Your task to perform on an android device: Open my contact list Image 0: 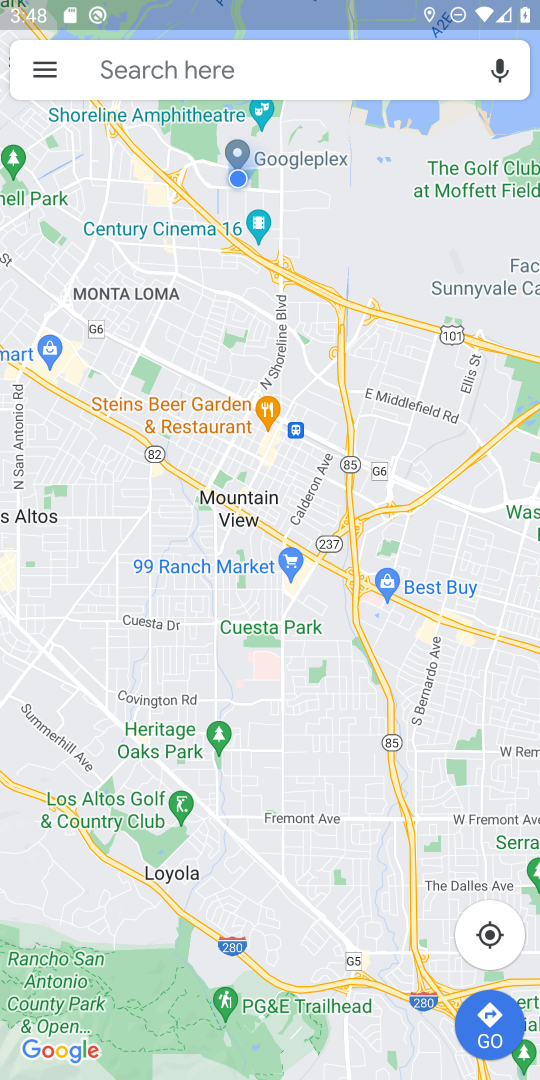
Step 0: press home button
Your task to perform on an android device: Open my contact list Image 1: 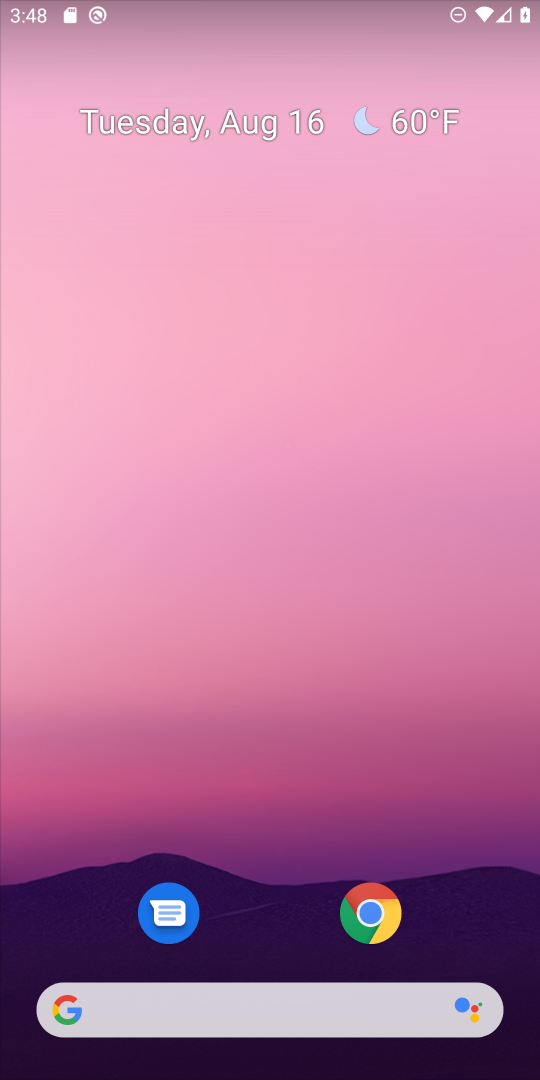
Step 1: drag from (505, 948) to (466, 221)
Your task to perform on an android device: Open my contact list Image 2: 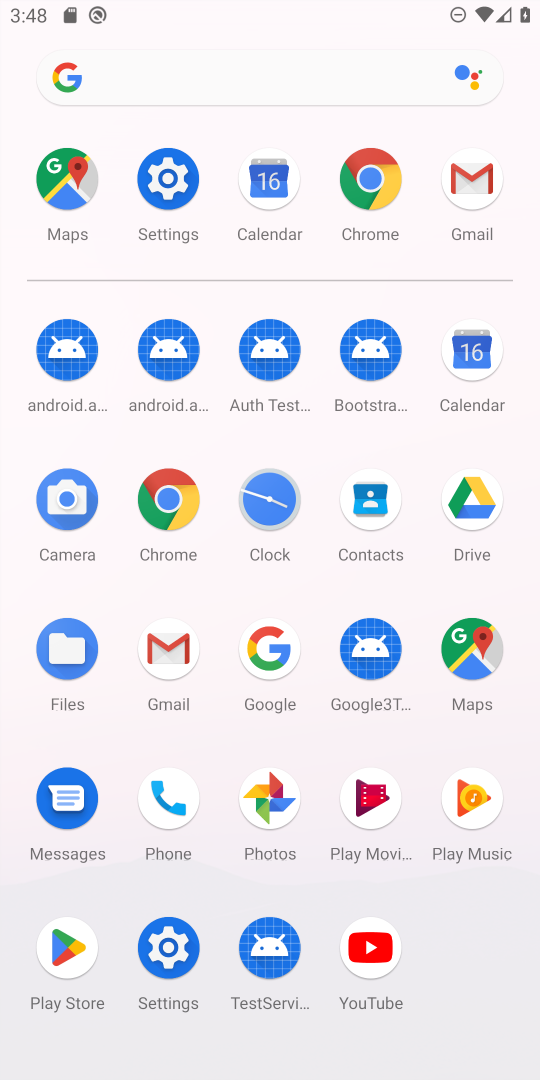
Step 2: click (367, 506)
Your task to perform on an android device: Open my contact list Image 3: 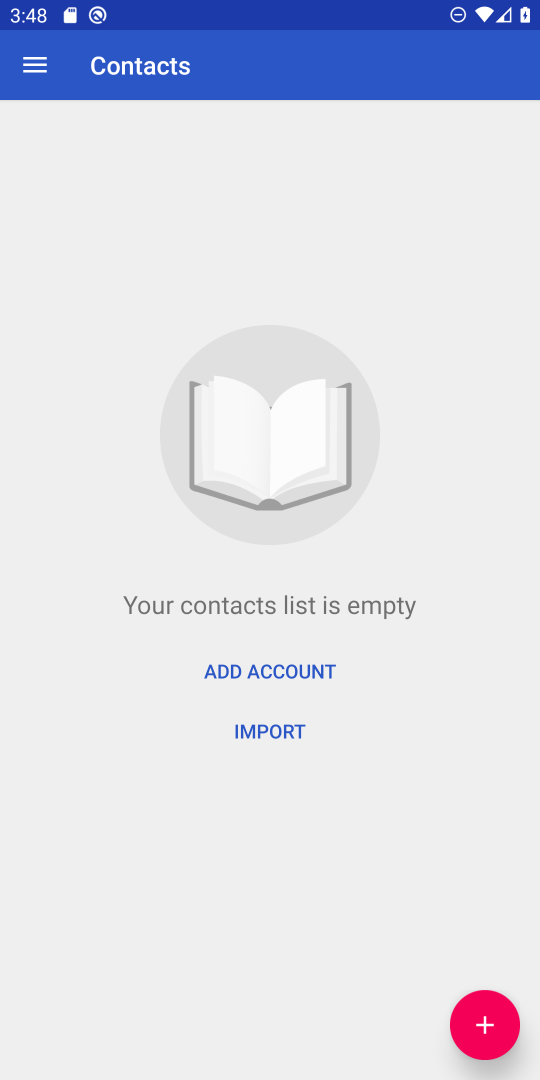
Step 3: task complete